Your task to perform on an android device: Go to CNN.com Image 0: 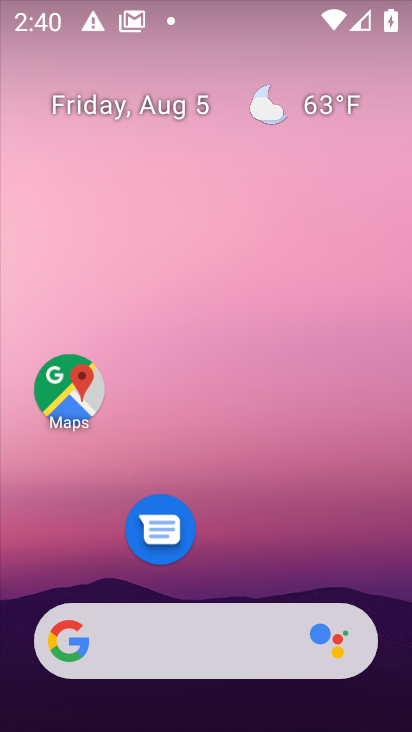
Step 0: click (230, 626)
Your task to perform on an android device: Go to CNN.com Image 1: 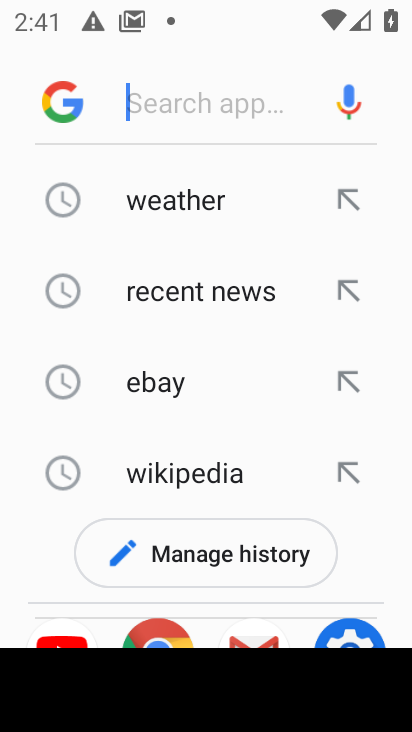
Step 1: type "cnn,com"
Your task to perform on an android device: Go to CNN.com Image 2: 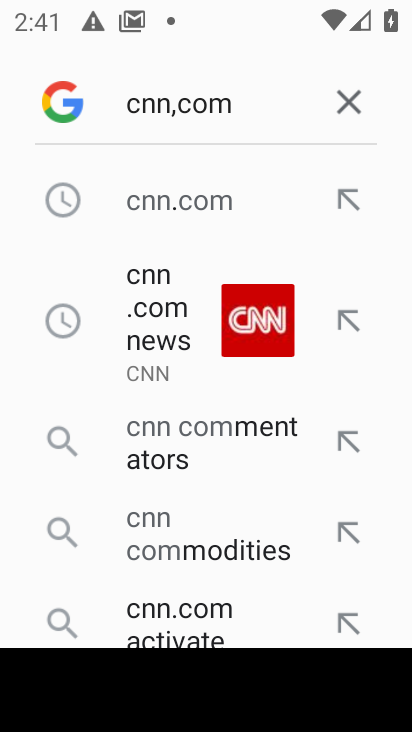
Step 2: click (174, 192)
Your task to perform on an android device: Go to CNN.com Image 3: 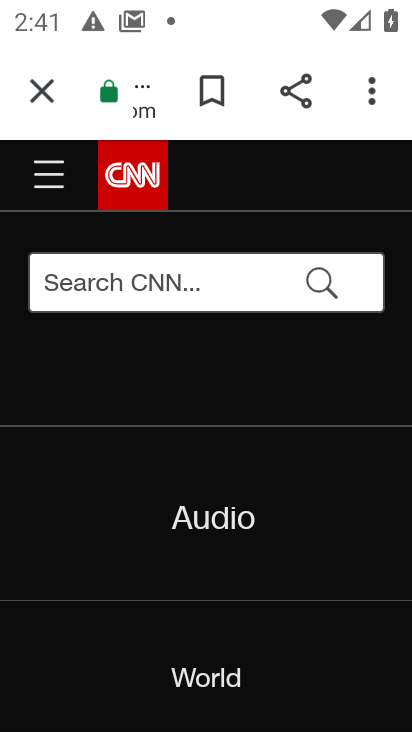
Step 3: task complete